Your task to perform on an android device: Search for flights from Buenos aires to Helsinki Image 0: 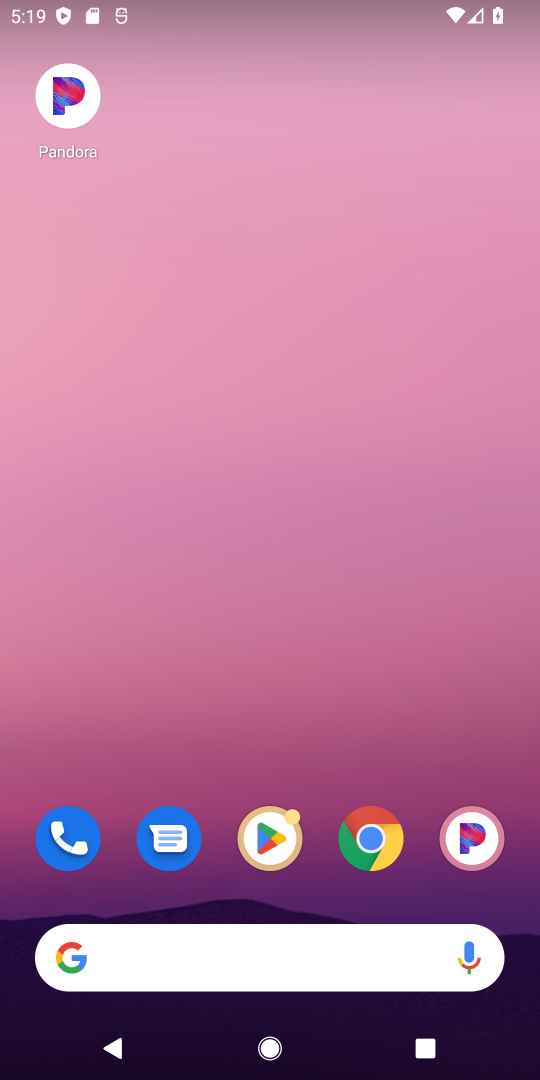
Step 0: click (377, 837)
Your task to perform on an android device: Search for flights from Buenos aires to Helsinki Image 1: 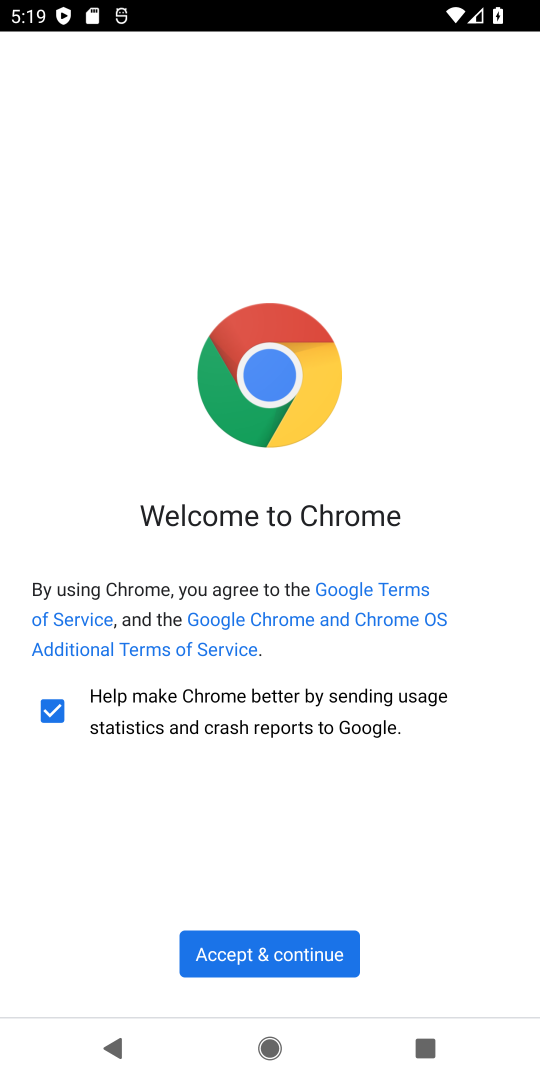
Step 1: click (299, 949)
Your task to perform on an android device: Search for flights from Buenos aires to Helsinki Image 2: 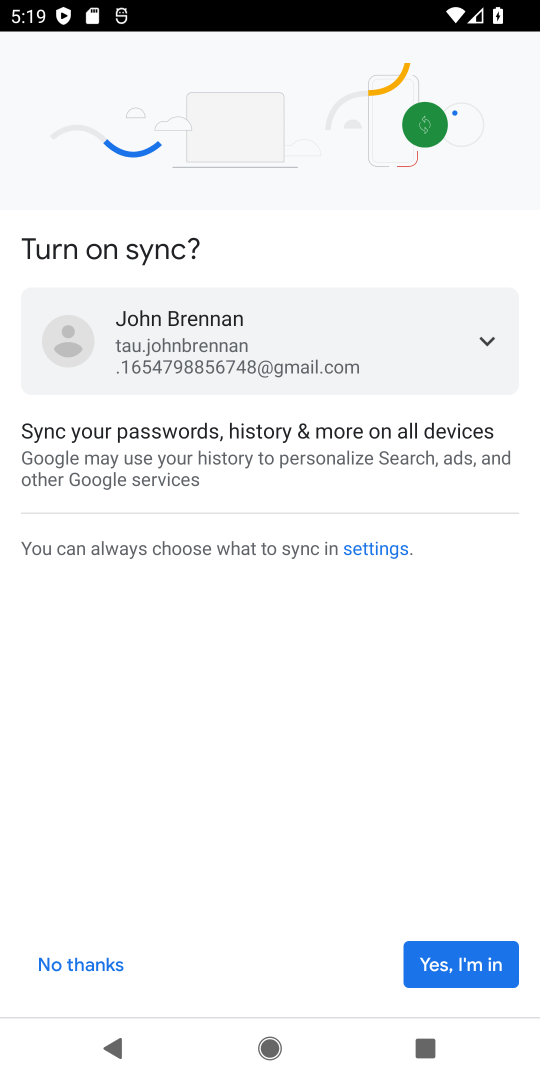
Step 2: click (80, 966)
Your task to perform on an android device: Search for flights from Buenos aires to Helsinki Image 3: 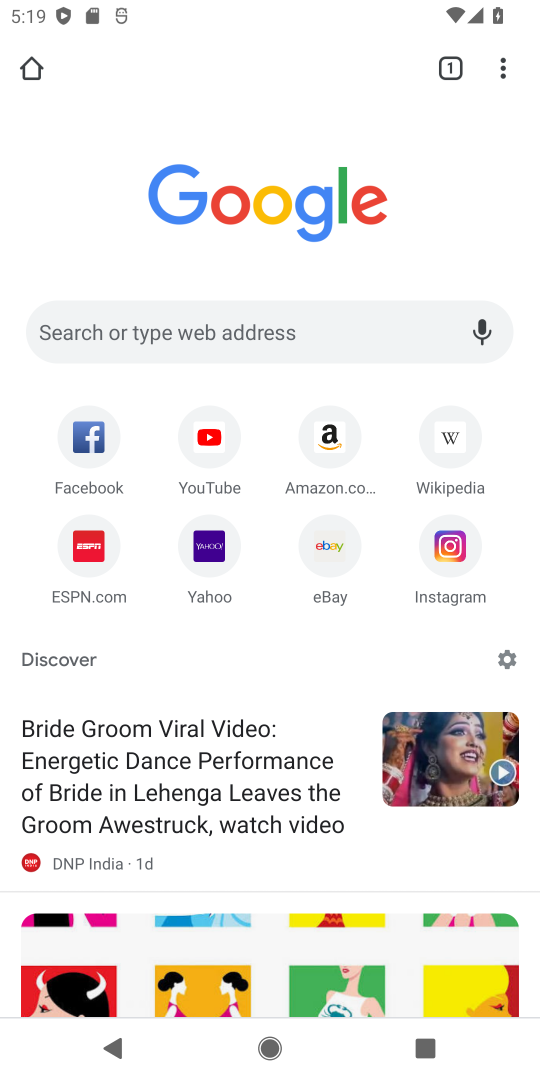
Step 3: click (286, 332)
Your task to perform on an android device: Search for flights from Buenos aires to Helsinki Image 4: 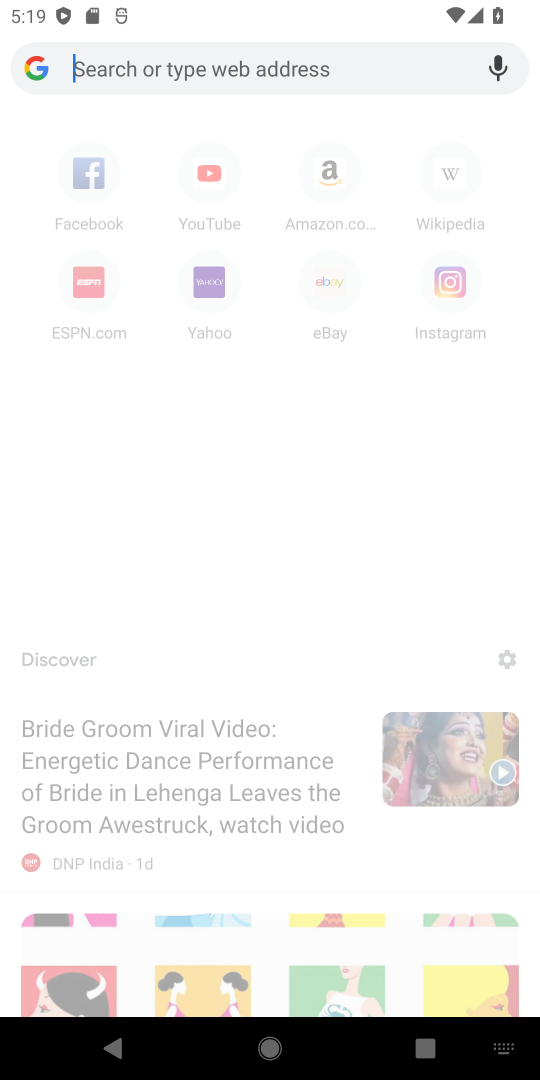
Step 4: click (354, 66)
Your task to perform on an android device: Search for flights from Buenos aires to Helsinki Image 5: 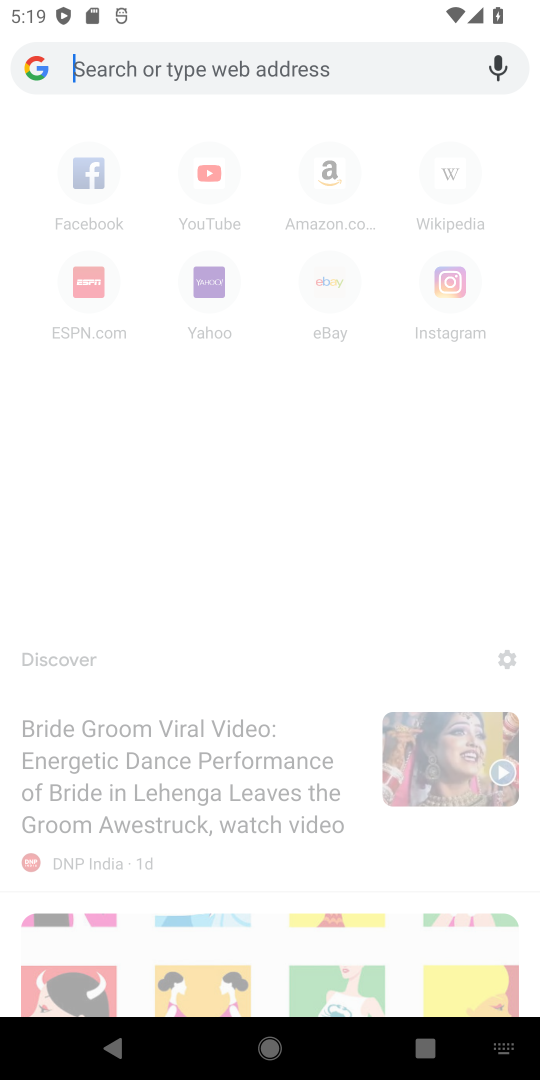
Step 5: type "flights from Buenos aires to Helsinki"
Your task to perform on an android device: Search for flights from Buenos aires to Helsinki Image 6: 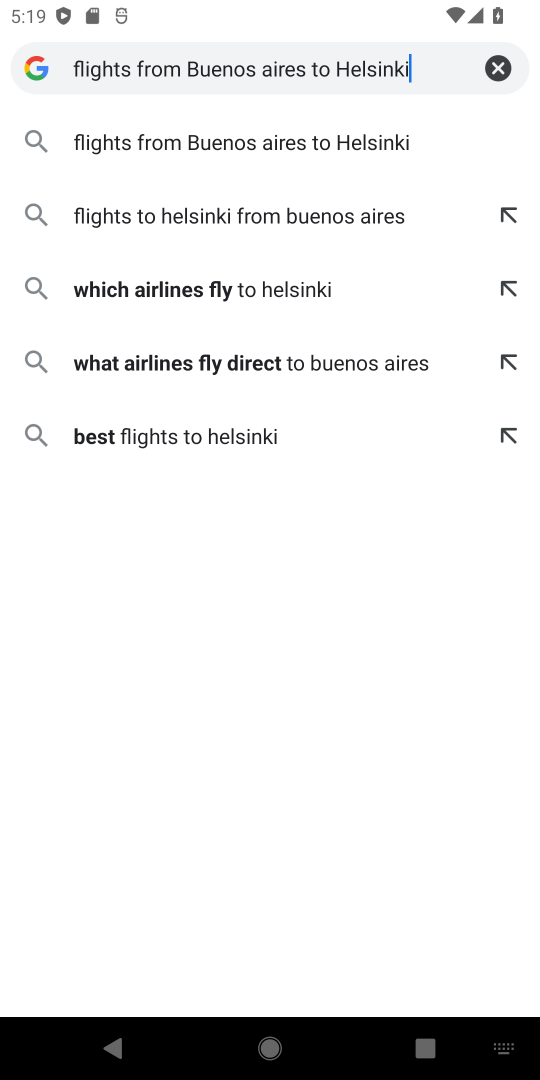
Step 6: press enter
Your task to perform on an android device: Search for flights from Buenos aires to Helsinki Image 7: 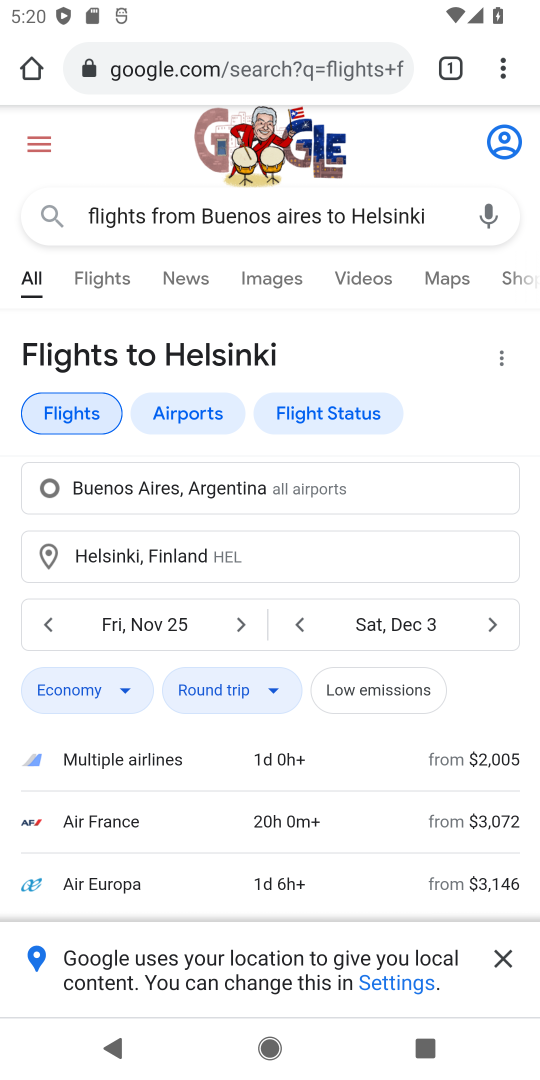
Step 7: drag from (390, 785) to (322, 408)
Your task to perform on an android device: Search for flights from Buenos aires to Helsinki Image 8: 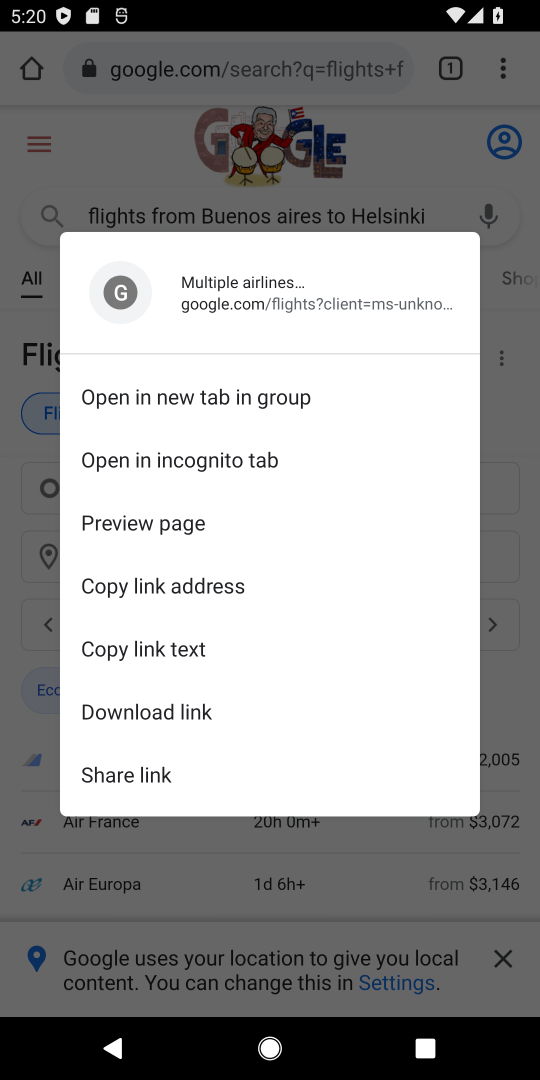
Step 8: click (389, 887)
Your task to perform on an android device: Search for flights from Buenos aires to Helsinki Image 9: 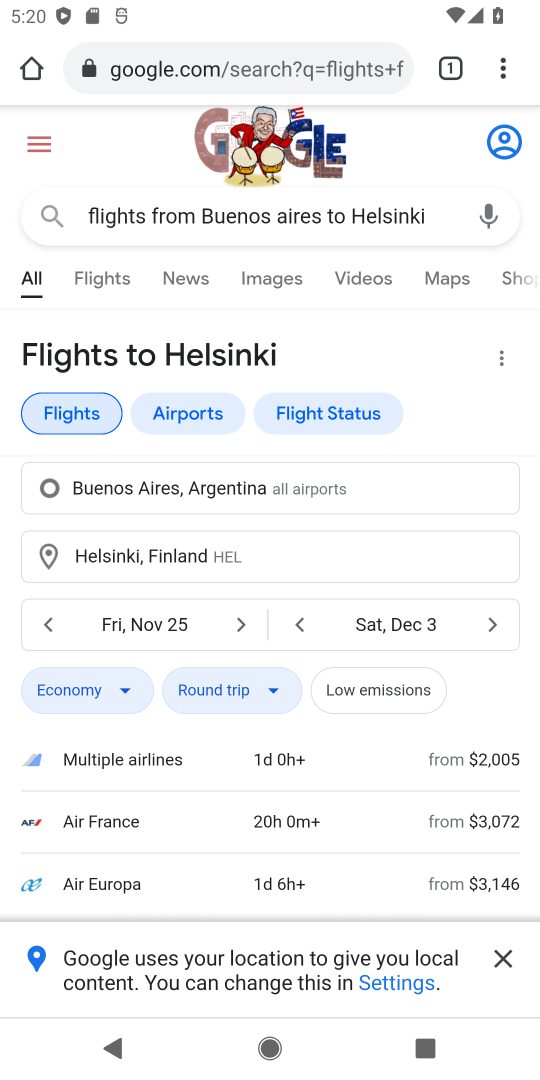
Step 9: drag from (389, 816) to (352, 270)
Your task to perform on an android device: Search for flights from Buenos aires to Helsinki Image 10: 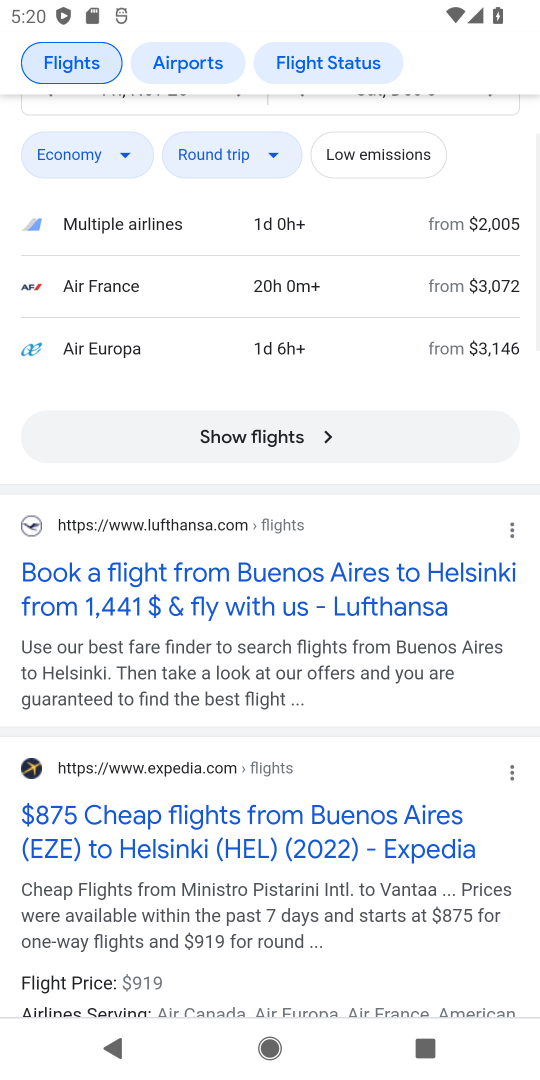
Step 10: click (252, 439)
Your task to perform on an android device: Search for flights from Buenos aires to Helsinki Image 11: 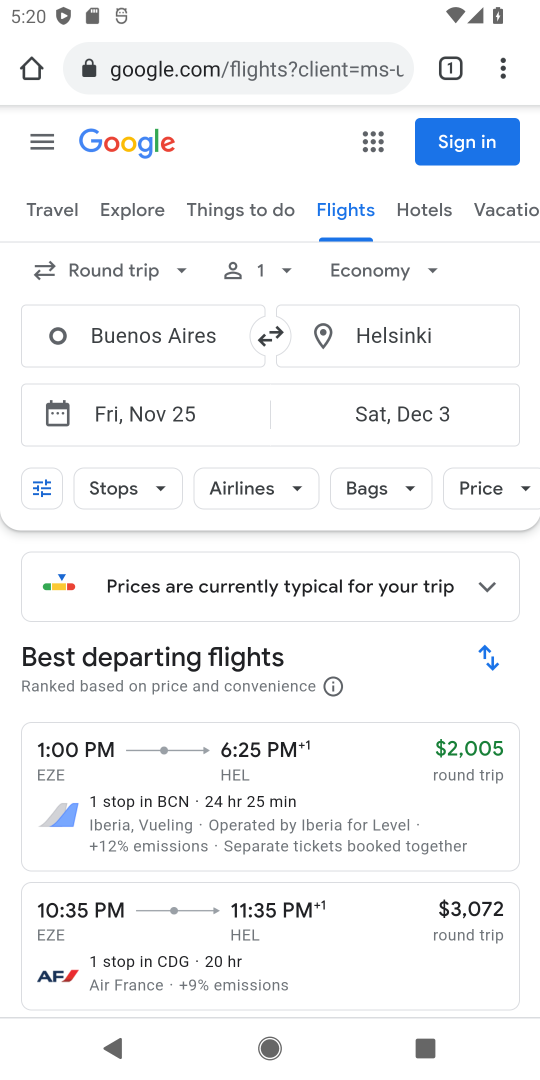
Step 11: task complete